Your task to perform on an android device: Search for vegetarian restaurants on Maps Image 0: 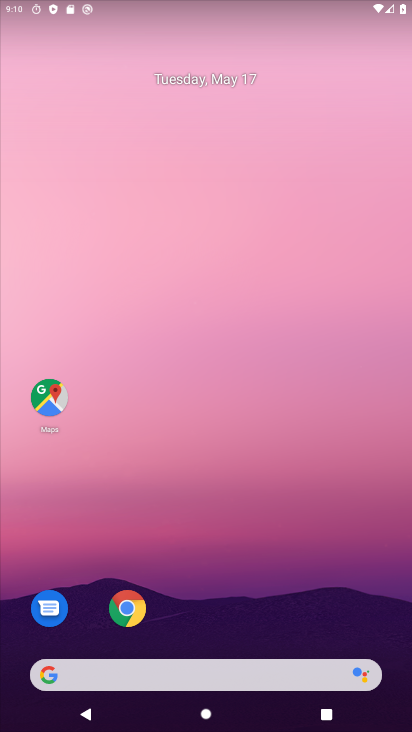
Step 0: drag from (356, 585) to (325, 87)
Your task to perform on an android device: Search for vegetarian restaurants on Maps Image 1: 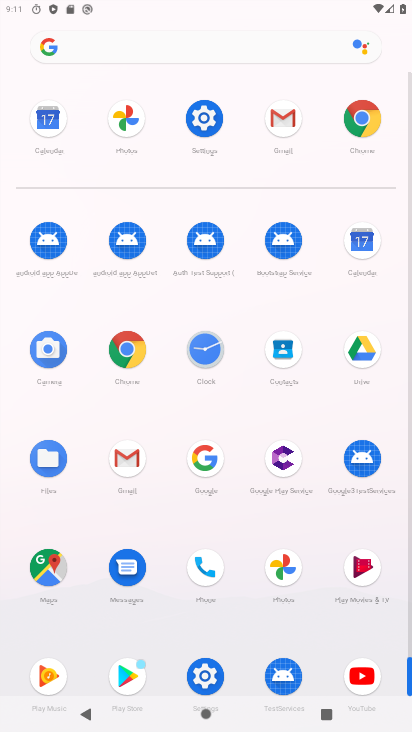
Step 1: click (50, 571)
Your task to perform on an android device: Search for vegetarian restaurants on Maps Image 2: 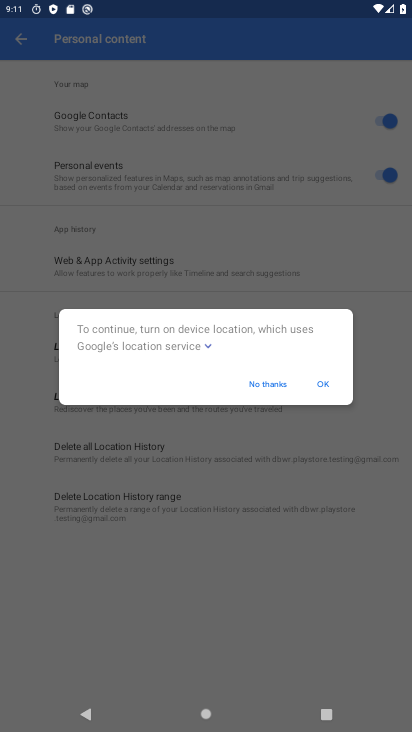
Step 2: click (319, 380)
Your task to perform on an android device: Search for vegetarian restaurants on Maps Image 3: 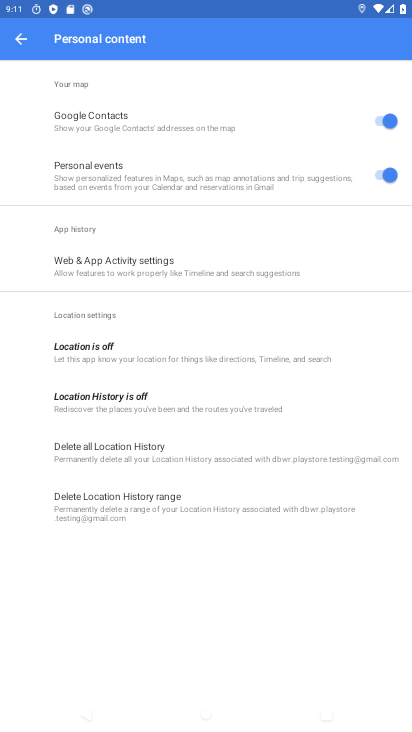
Step 3: click (31, 39)
Your task to perform on an android device: Search for vegetarian restaurants on Maps Image 4: 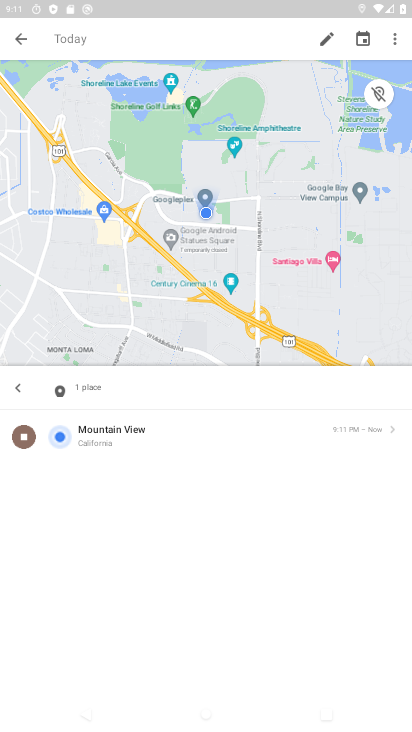
Step 4: click (31, 39)
Your task to perform on an android device: Search for vegetarian restaurants on Maps Image 5: 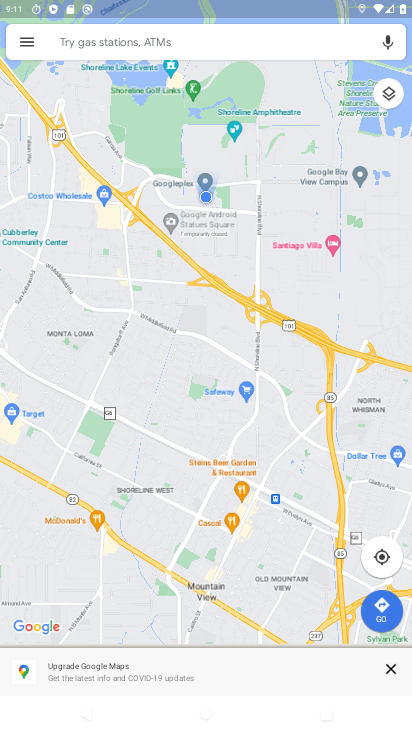
Step 5: click (220, 50)
Your task to perform on an android device: Search for vegetarian restaurants on Maps Image 6: 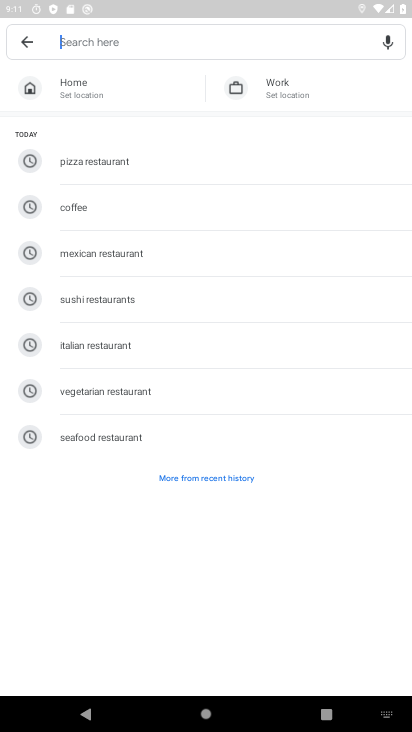
Step 6: type "vegetarian restaurants"
Your task to perform on an android device: Search for vegetarian restaurants on Maps Image 7: 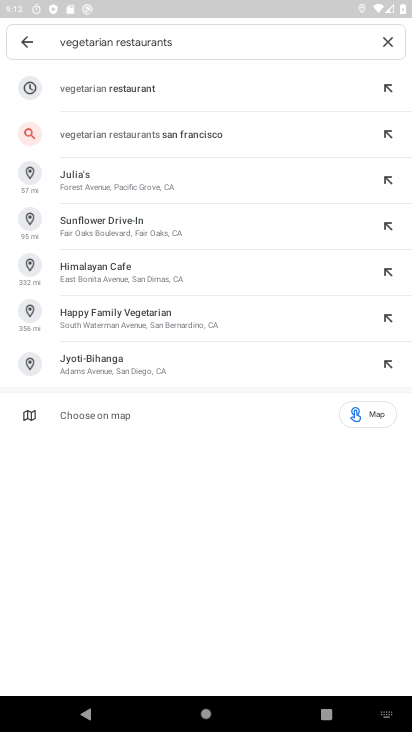
Step 7: click (106, 109)
Your task to perform on an android device: Search for vegetarian restaurants on Maps Image 8: 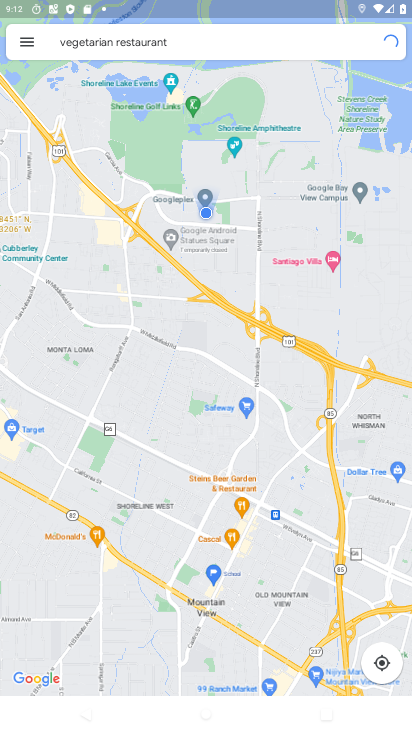
Step 8: task complete